Your task to perform on an android device: Clear the cart on ebay. Image 0: 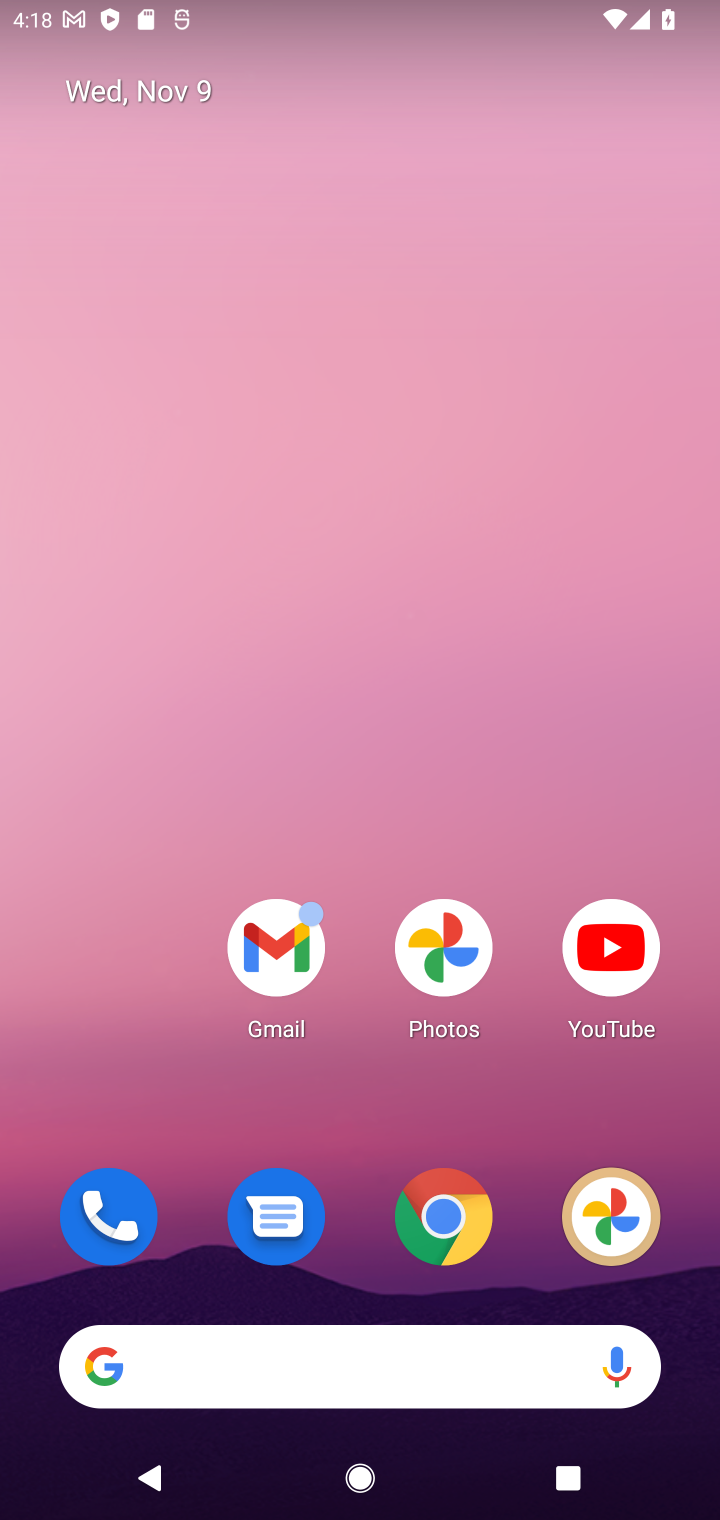
Step 0: drag from (385, 1030) to (340, 238)
Your task to perform on an android device: Clear the cart on ebay. Image 1: 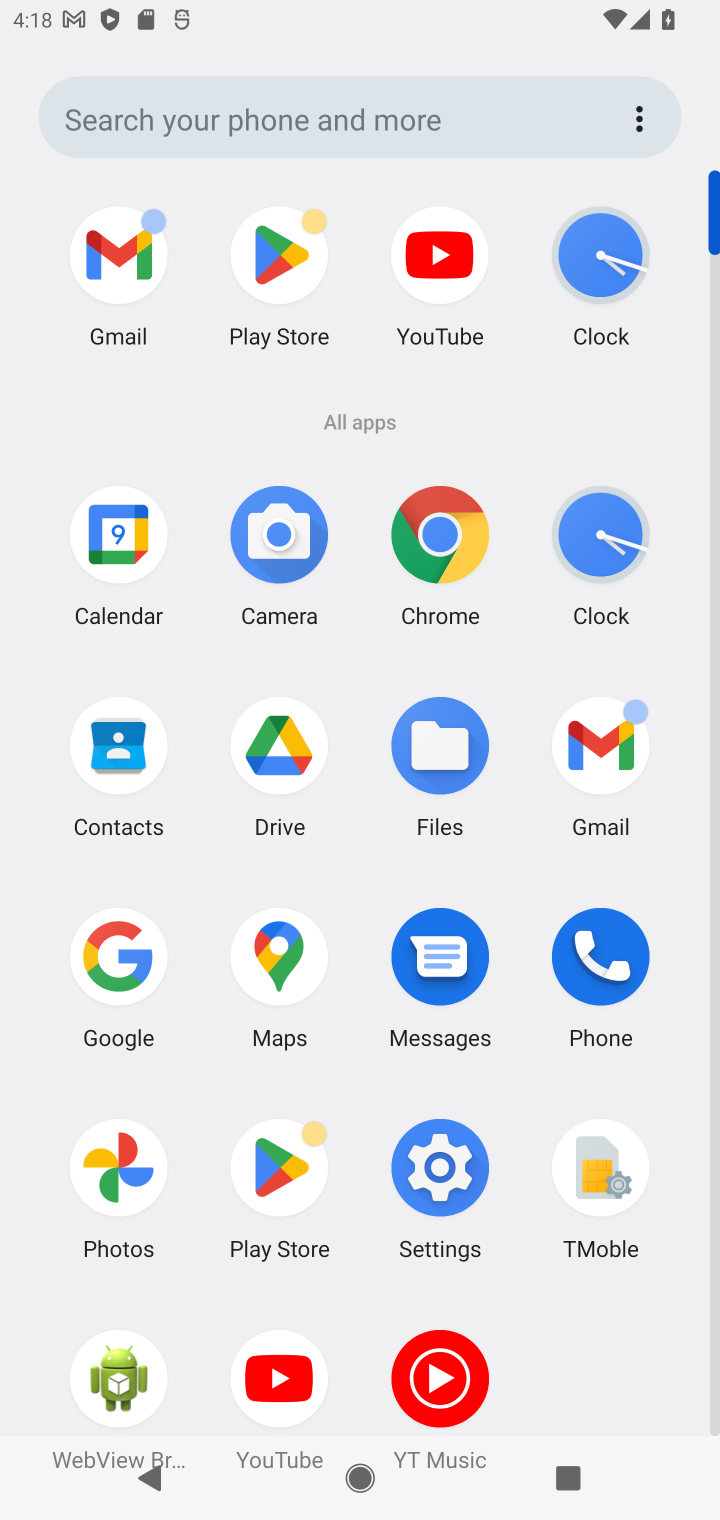
Step 1: click (434, 529)
Your task to perform on an android device: Clear the cart on ebay. Image 2: 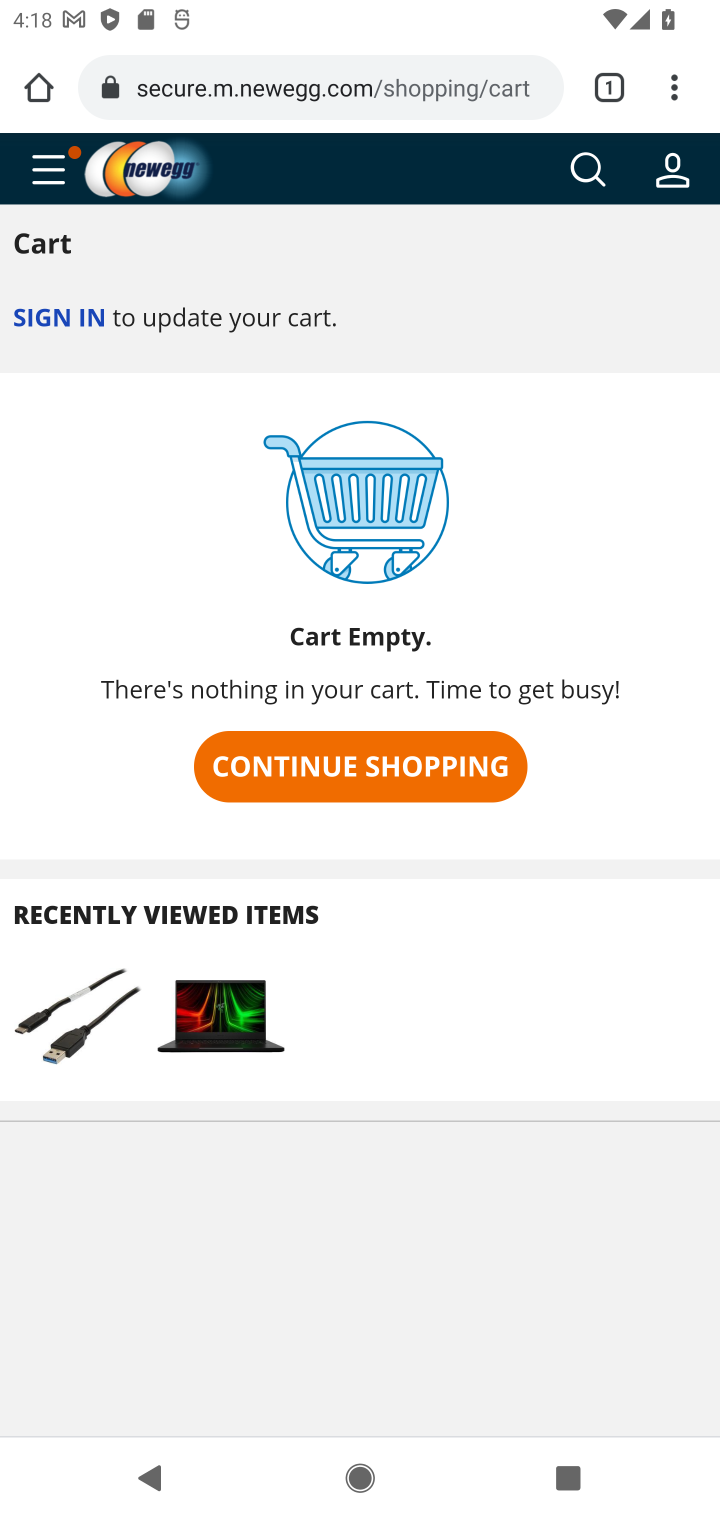
Step 2: click (349, 85)
Your task to perform on an android device: Clear the cart on ebay. Image 3: 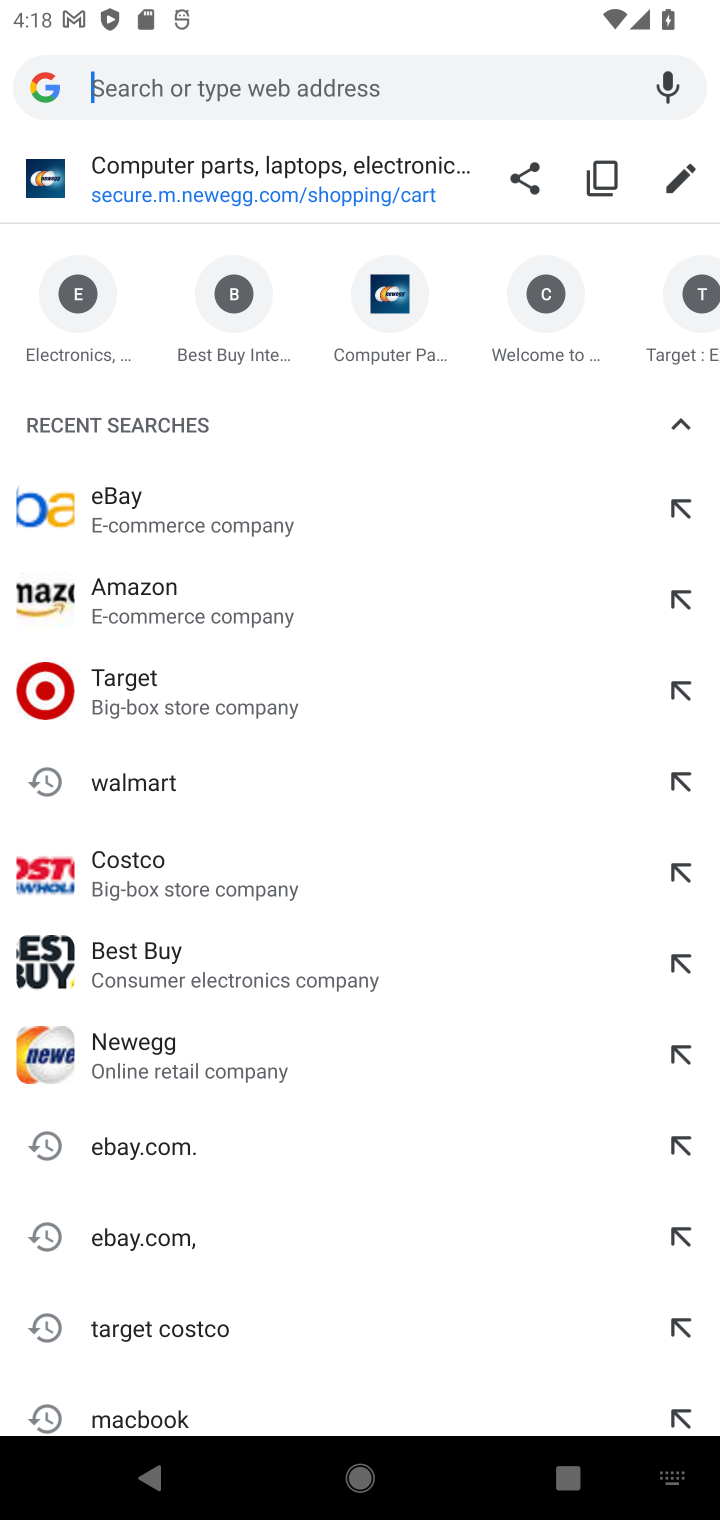
Step 3: type "ebay.com"
Your task to perform on an android device: Clear the cart on ebay. Image 4: 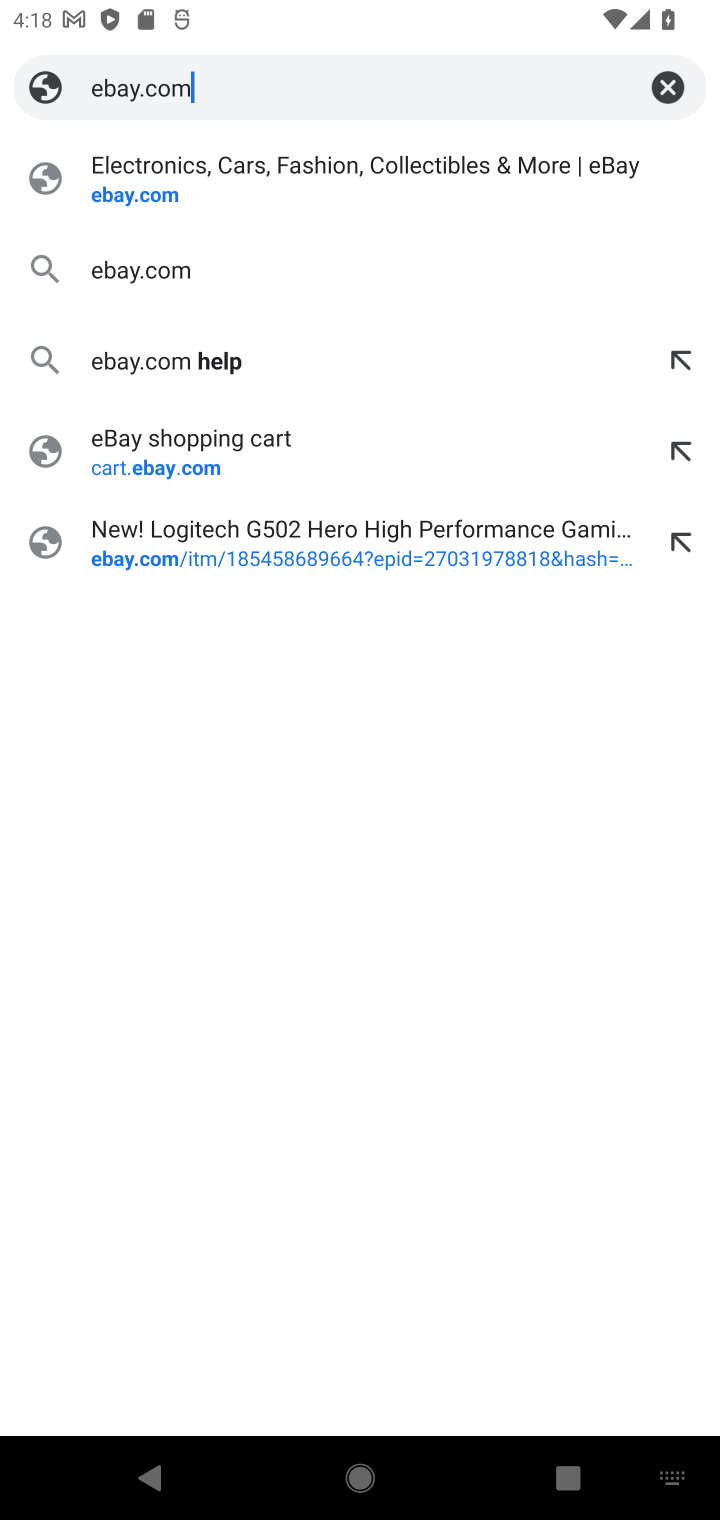
Step 4: press enter
Your task to perform on an android device: Clear the cart on ebay. Image 5: 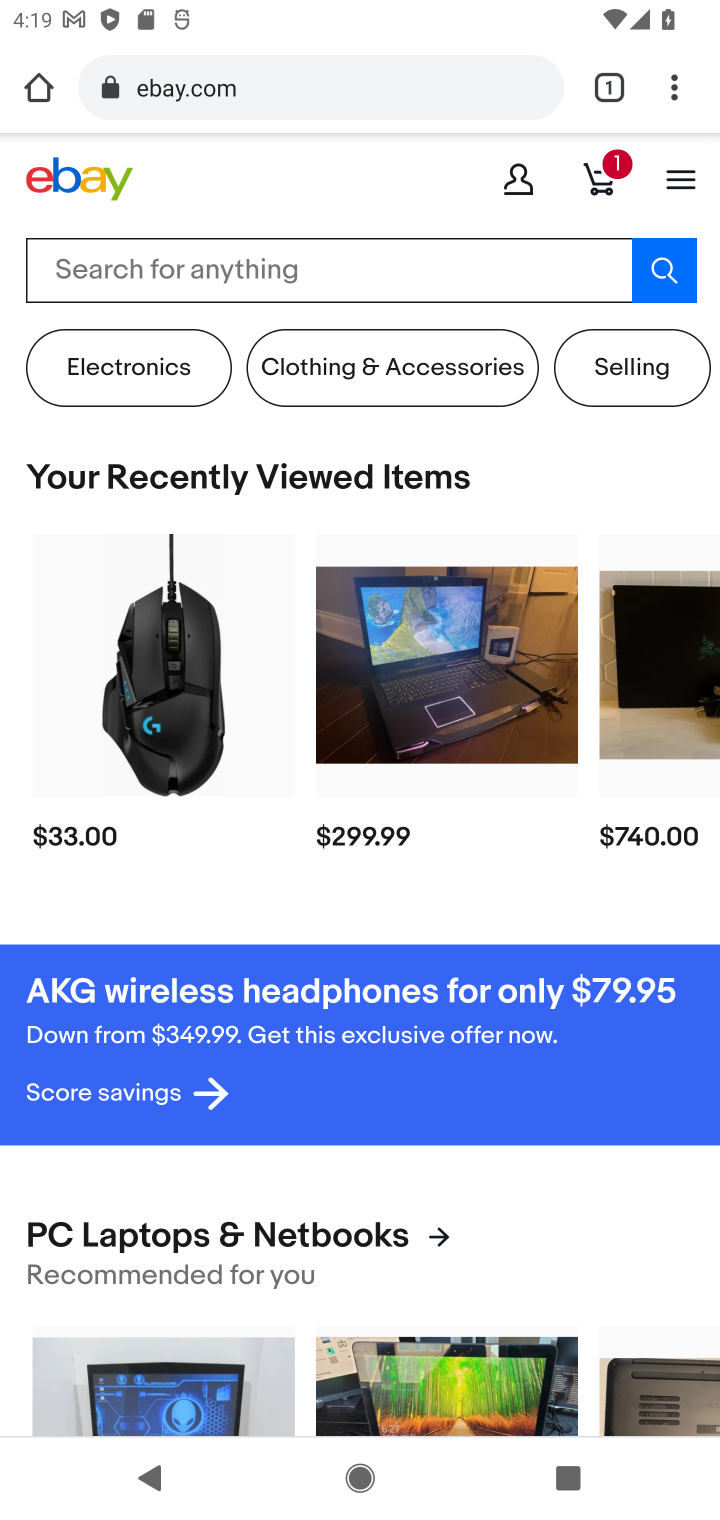
Step 5: click (615, 188)
Your task to perform on an android device: Clear the cart on ebay. Image 6: 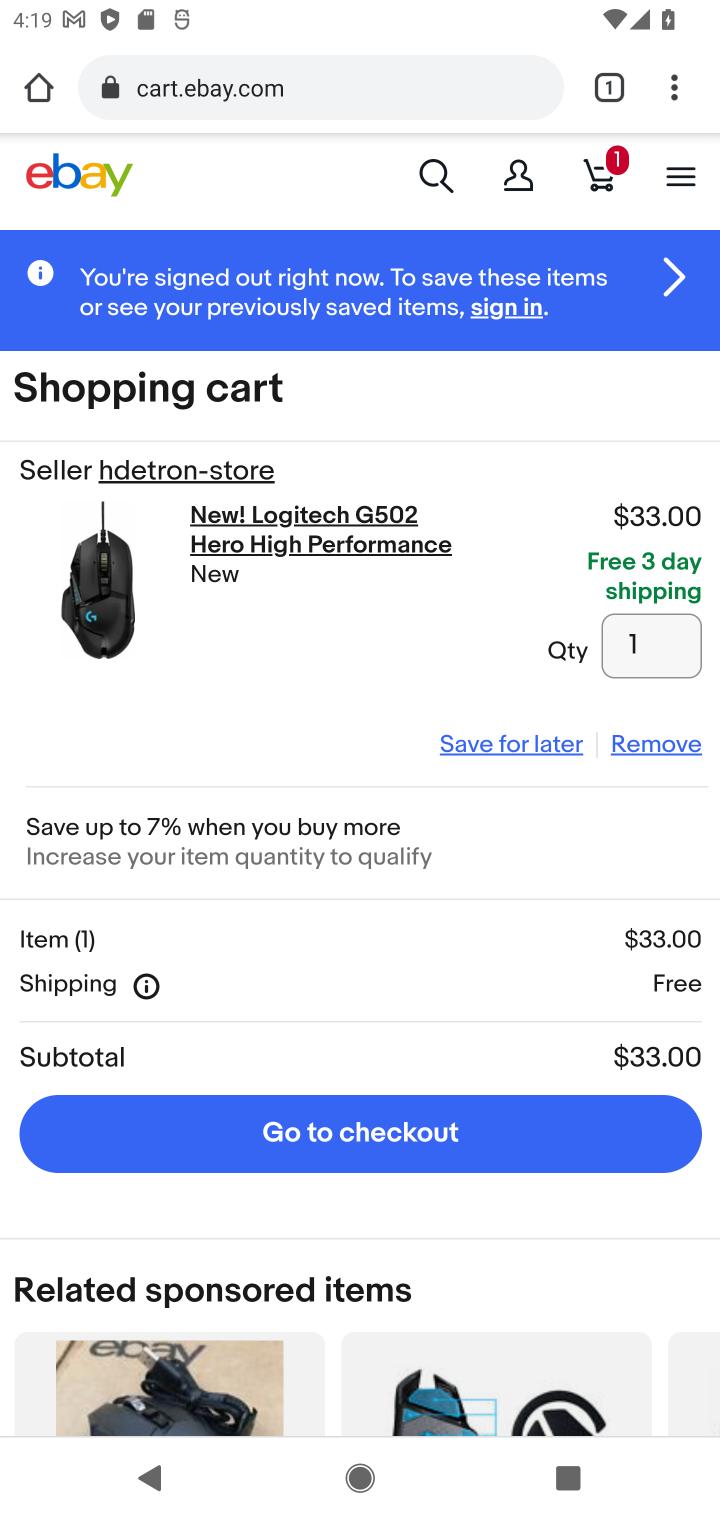
Step 6: click (646, 742)
Your task to perform on an android device: Clear the cart on ebay. Image 7: 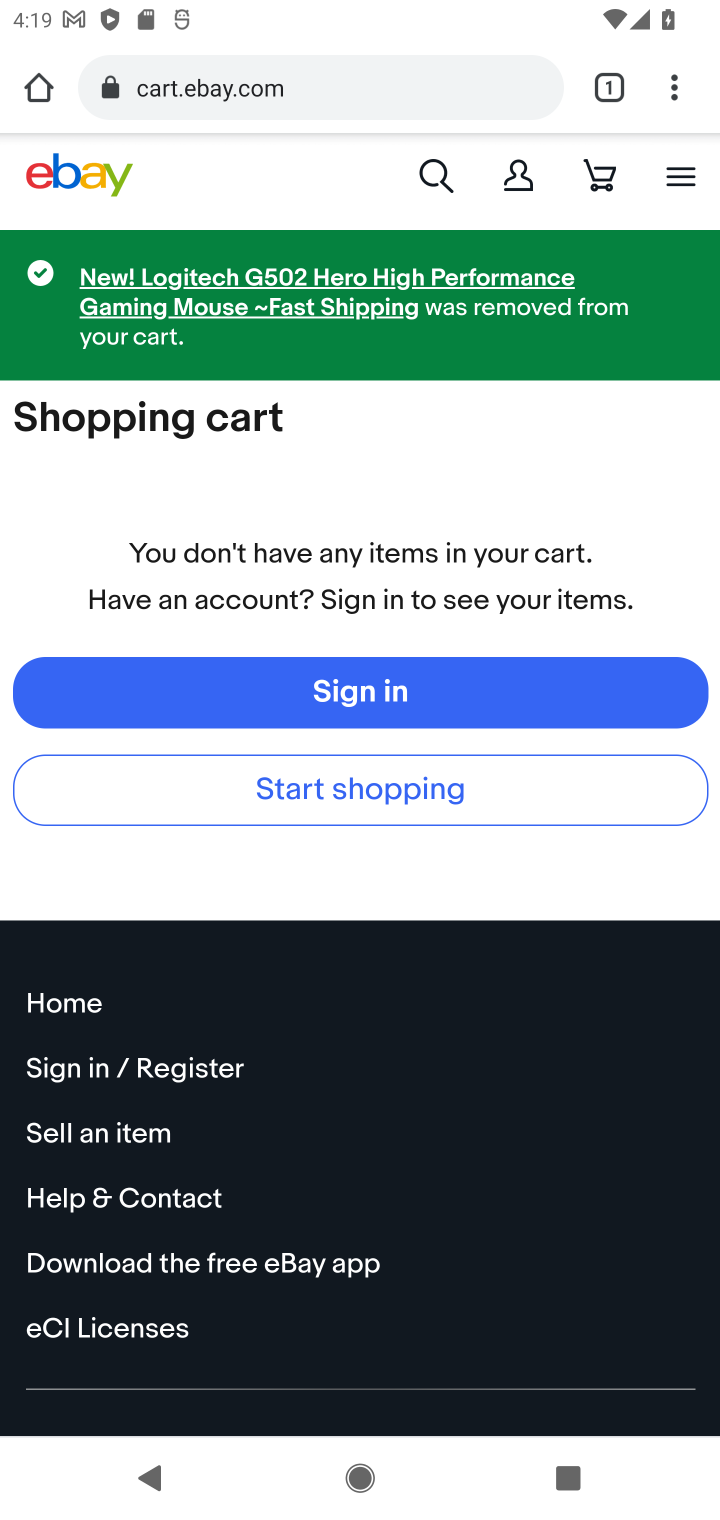
Step 7: task complete